Your task to perform on an android device: toggle pop-ups in chrome Image 0: 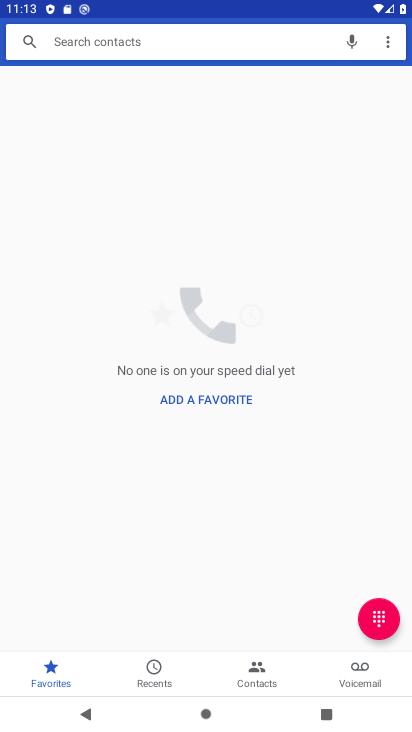
Step 0: press home button
Your task to perform on an android device: toggle pop-ups in chrome Image 1: 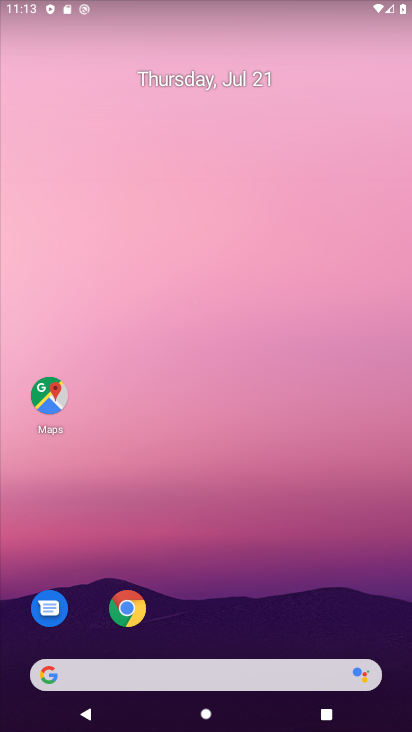
Step 1: click (143, 605)
Your task to perform on an android device: toggle pop-ups in chrome Image 2: 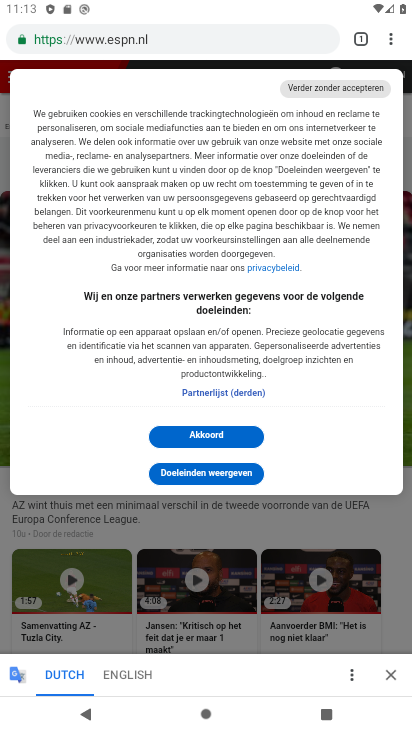
Step 2: click (389, 33)
Your task to perform on an android device: toggle pop-ups in chrome Image 3: 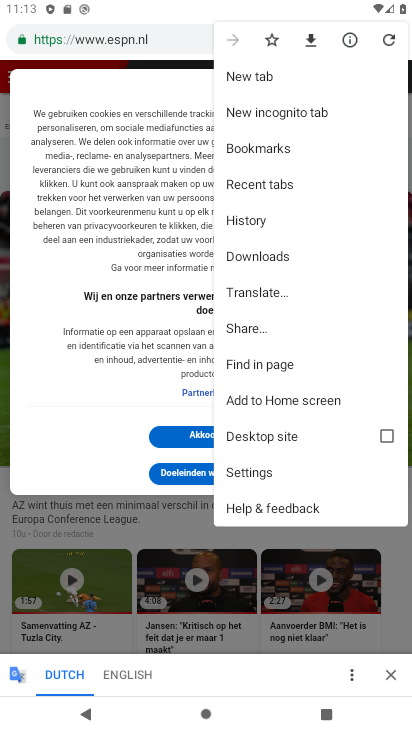
Step 3: click (245, 474)
Your task to perform on an android device: toggle pop-ups in chrome Image 4: 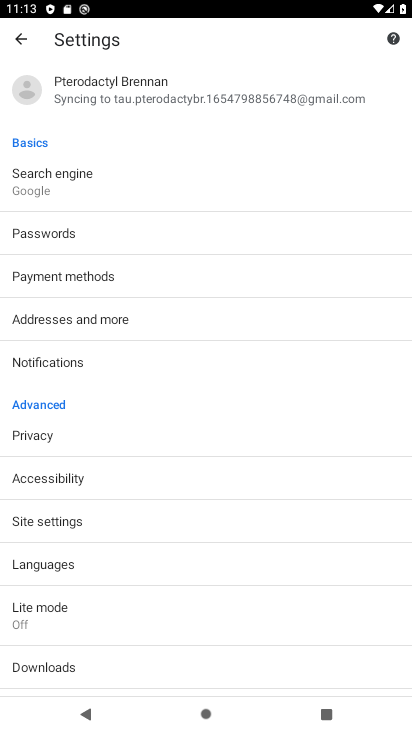
Step 4: click (59, 526)
Your task to perform on an android device: toggle pop-ups in chrome Image 5: 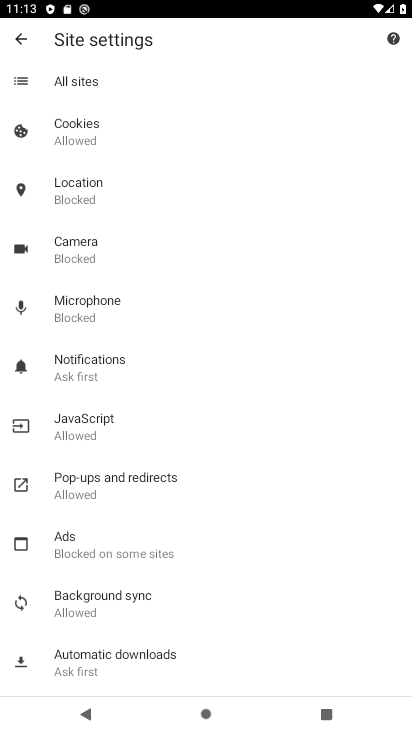
Step 5: click (102, 488)
Your task to perform on an android device: toggle pop-ups in chrome Image 6: 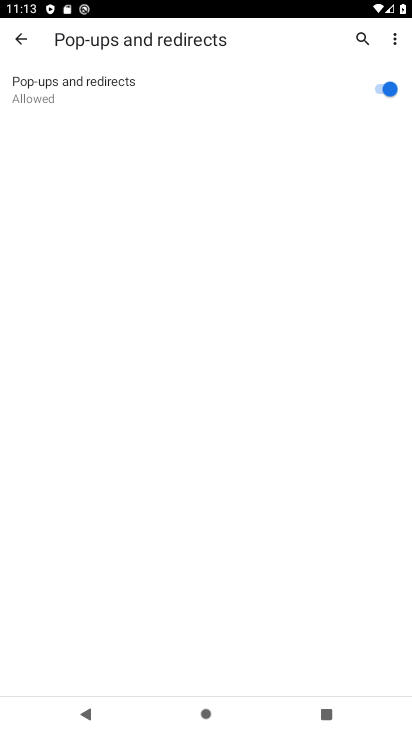
Step 6: click (327, 75)
Your task to perform on an android device: toggle pop-ups in chrome Image 7: 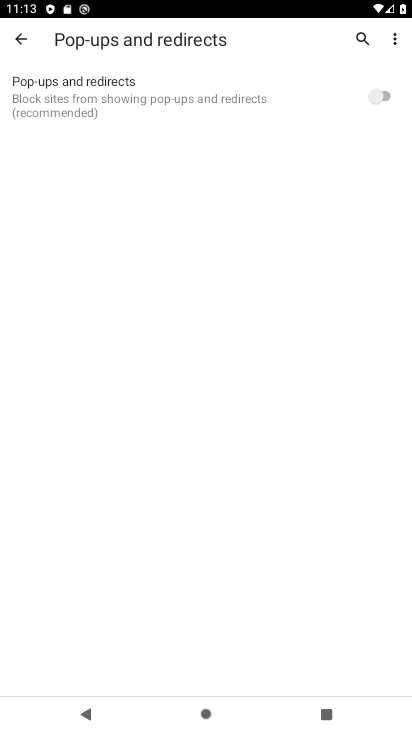
Step 7: task complete